Your task to perform on an android device: turn on sleep mode Image 0: 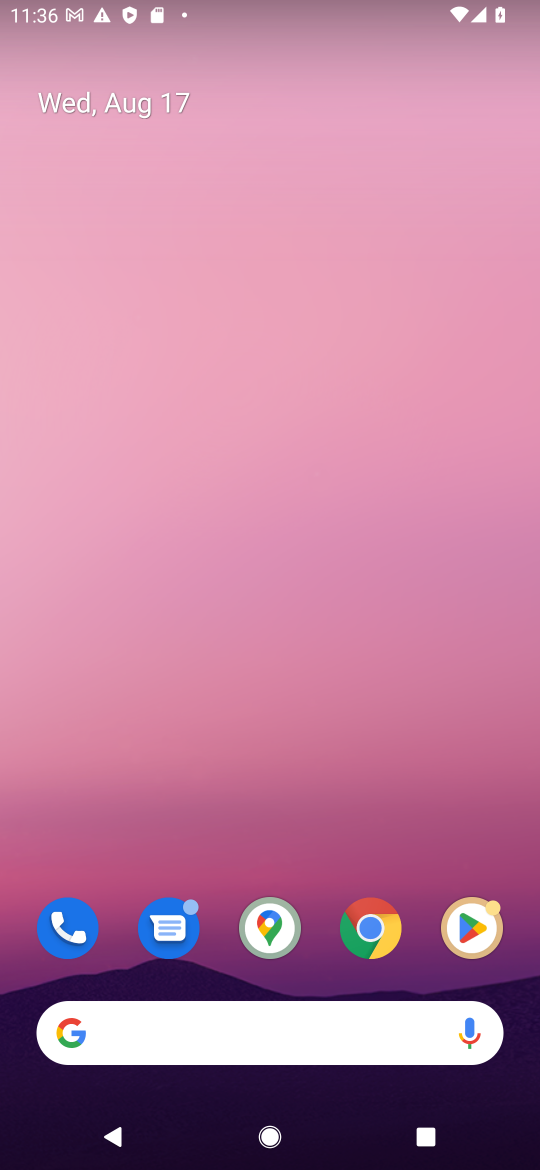
Step 0: drag from (298, 824) to (306, 160)
Your task to perform on an android device: turn on sleep mode Image 1: 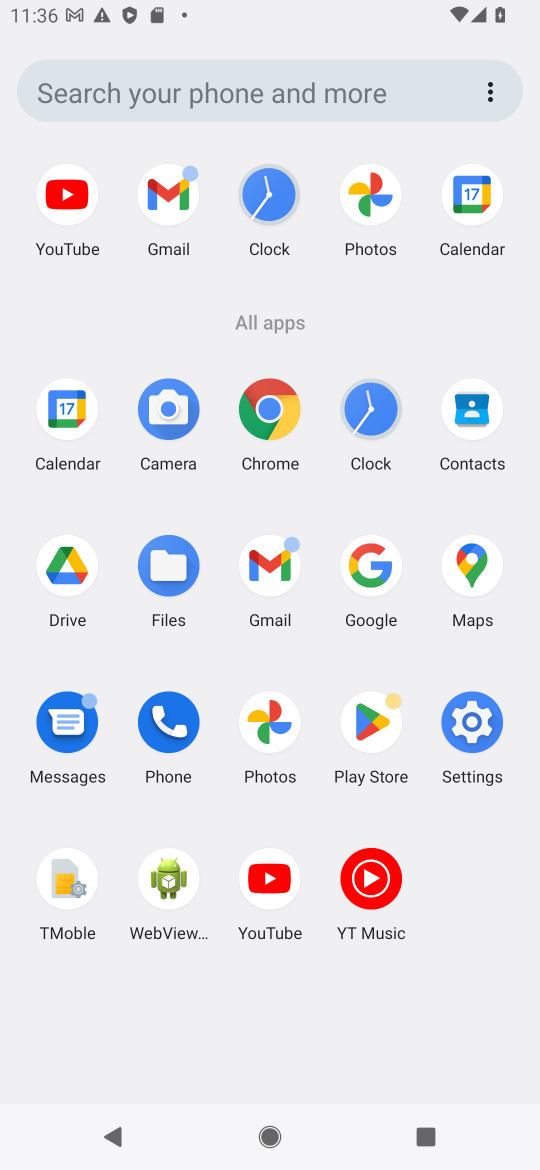
Step 1: click (476, 750)
Your task to perform on an android device: turn on sleep mode Image 2: 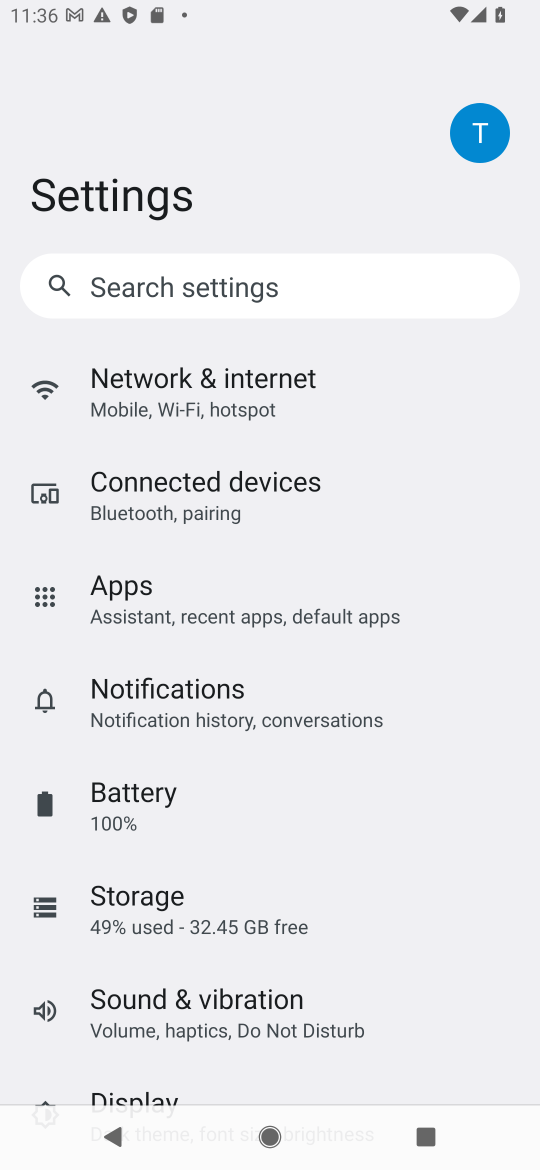
Step 2: drag from (166, 998) to (176, 654)
Your task to perform on an android device: turn on sleep mode Image 3: 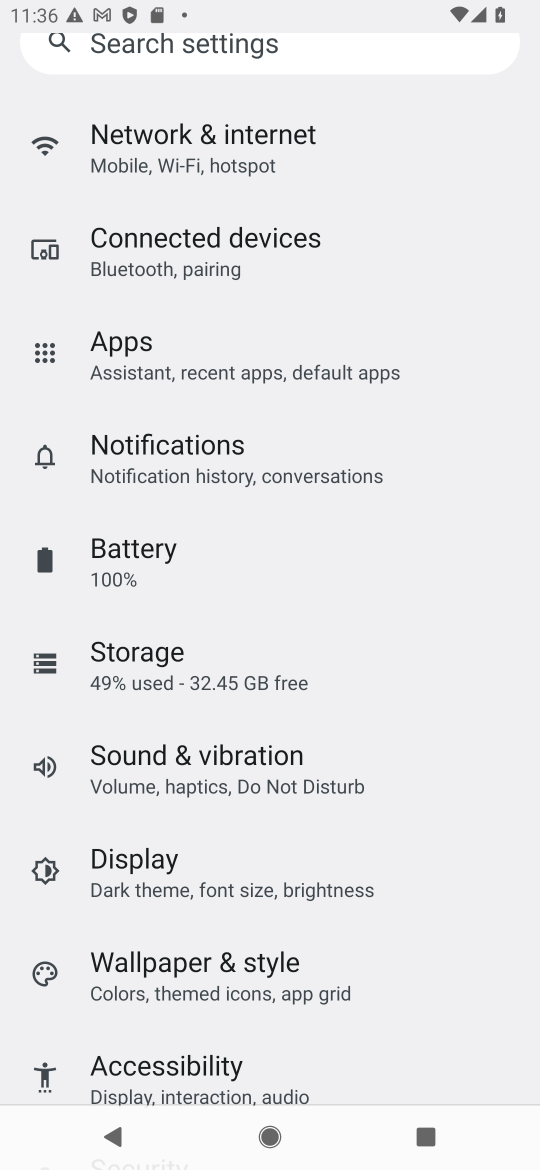
Step 3: click (167, 861)
Your task to perform on an android device: turn on sleep mode Image 4: 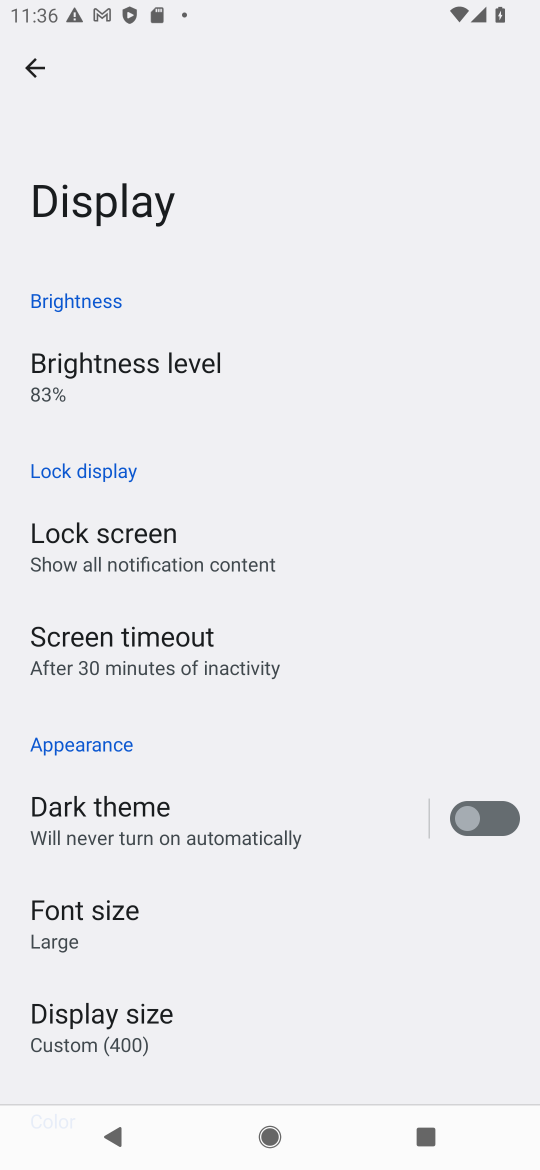
Step 4: click (205, 660)
Your task to perform on an android device: turn on sleep mode Image 5: 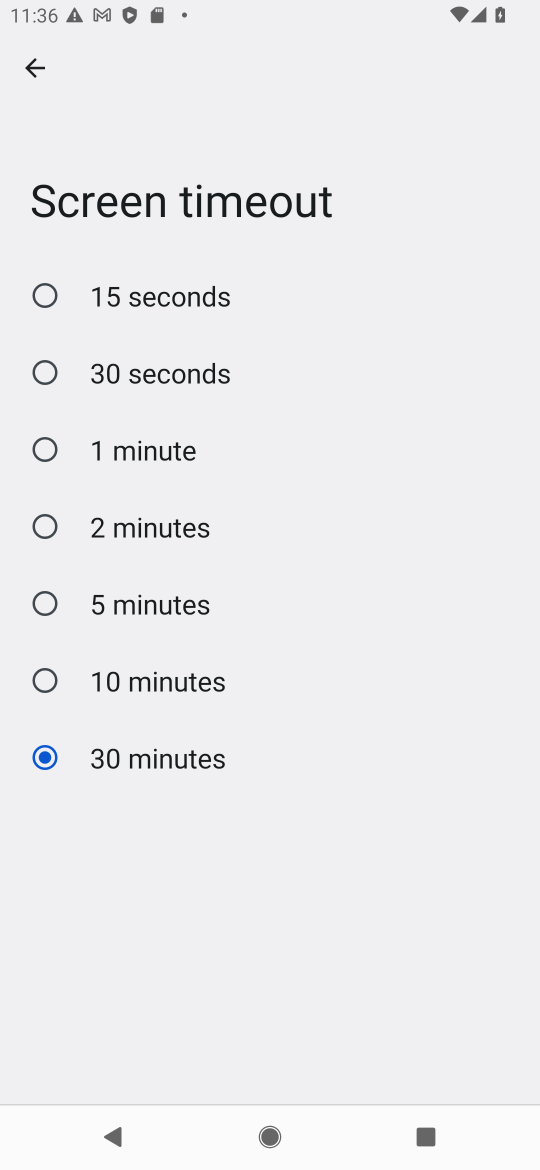
Step 5: click (166, 471)
Your task to perform on an android device: turn on sleep mode Image 6: 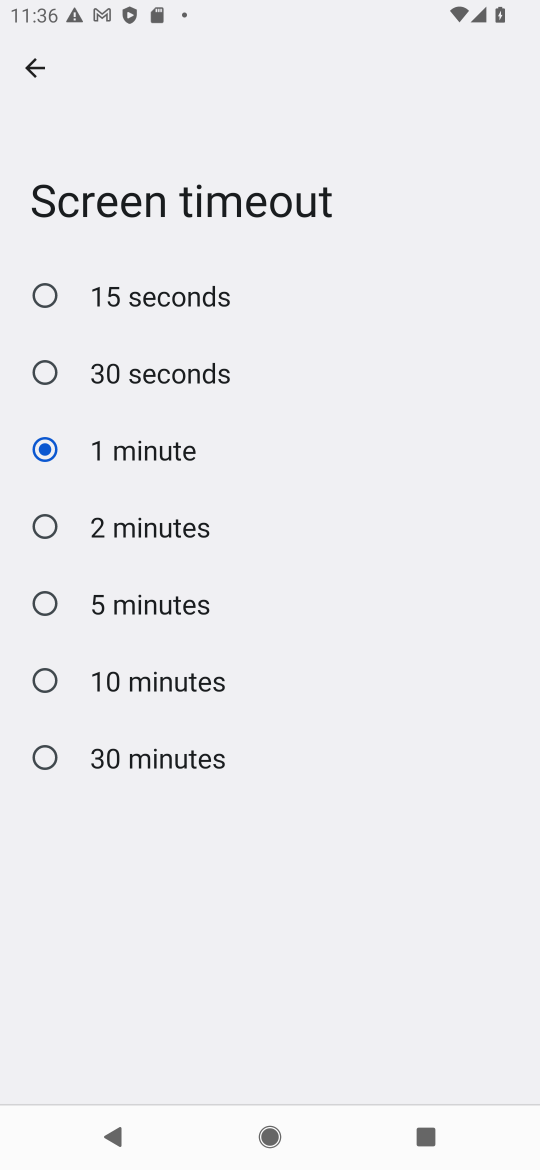
Step 6: task complete